Your task to perform on an android device: Do I have any events this weekend? Image 0: 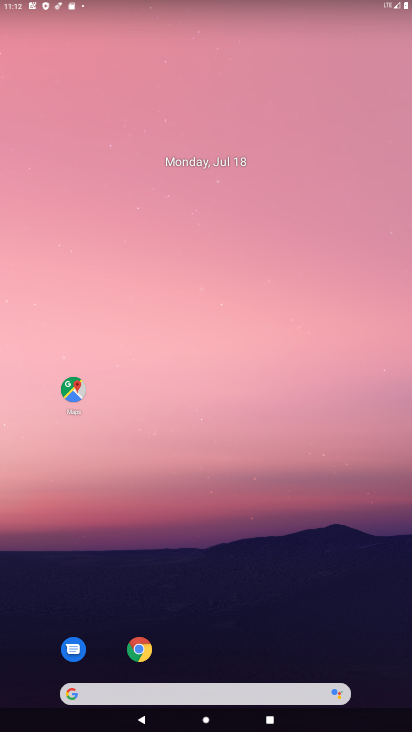
Step 0: drag from (190, 694) to (275, 209)
Your task to perform on an android device: Do I have any events this weekend? Image 1: 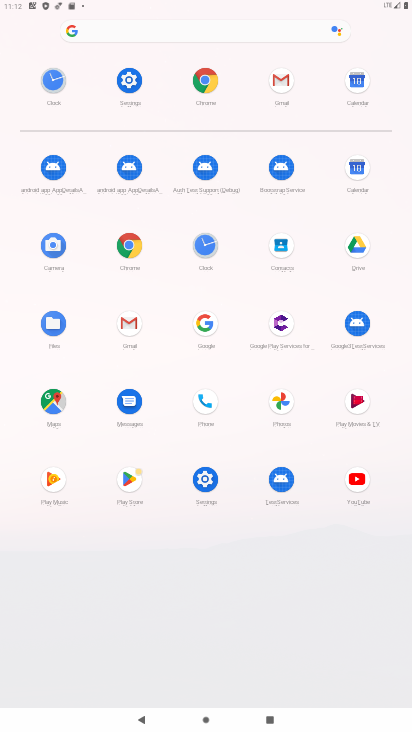
Step 1: click (351, 155)
Your task to perform on an android device: Do I have any events this weekend? Image 2: 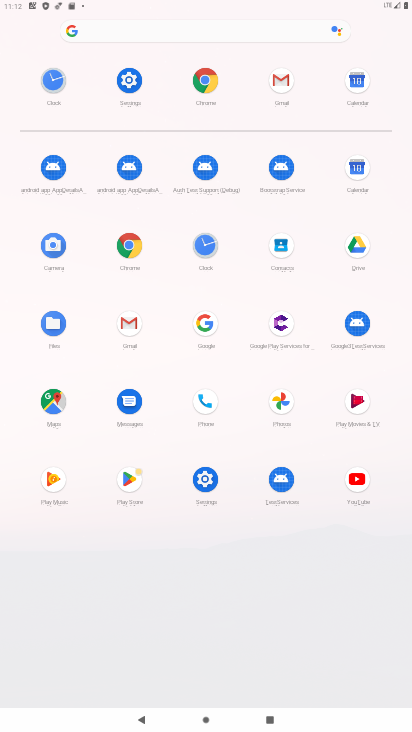
Step 2: click (351, 155)
Your task to perform on an android device: Do I have any events this weekend? Image 3: 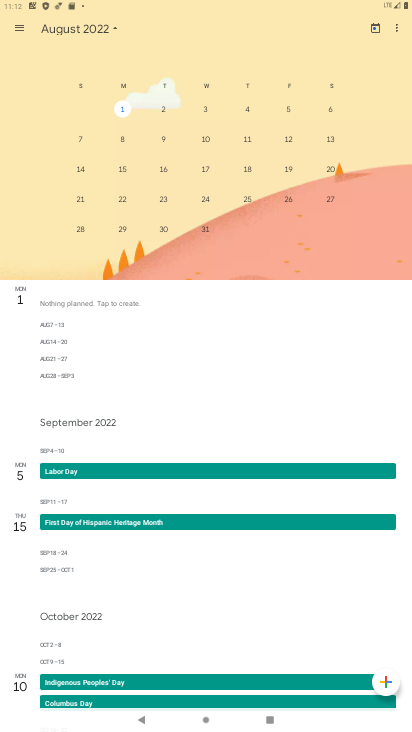
Step 3: task complete